Your task to perform on an android device: turn vacation reply on in the gmail app Image 0: 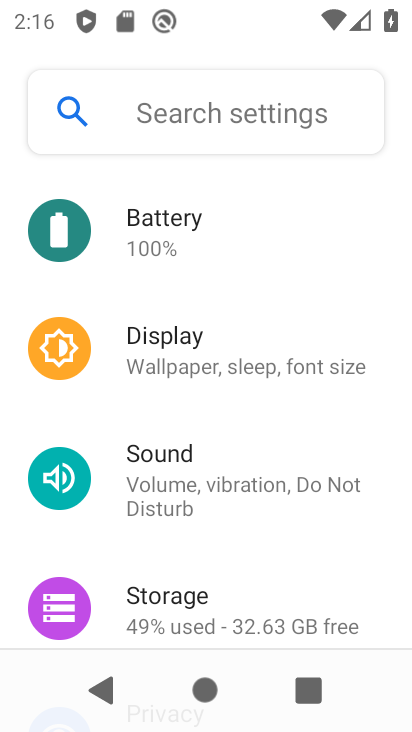
Step 0: press home button
Your task to perform on an android device: turn vacation reply on in the gmail app Image 1: 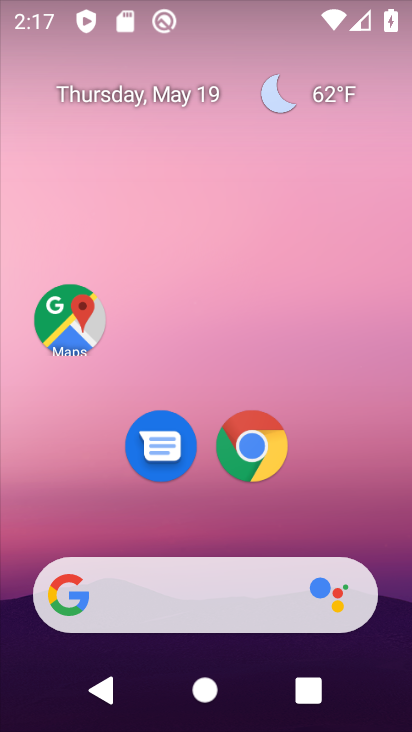
Step 1: drag from (389, 704) to (376, 280)
Your task to perform on an android device: turn vacation reply on in the gmail app Image 2: 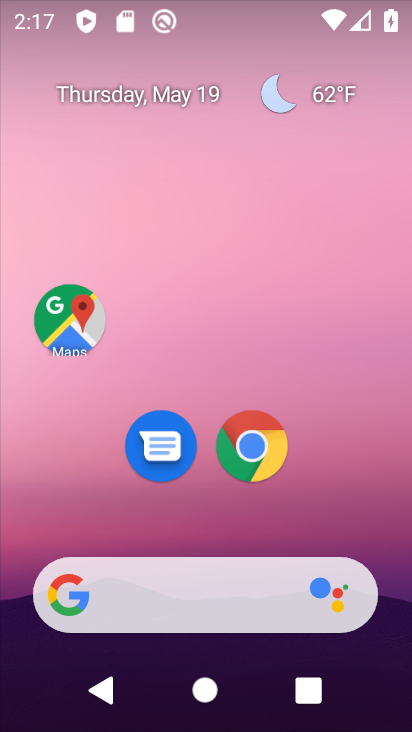
Step 2: drag from (394, 703) to (340, 279)
Your task to perform on an android device: turn vacation reply on in the gmail app Image 3: 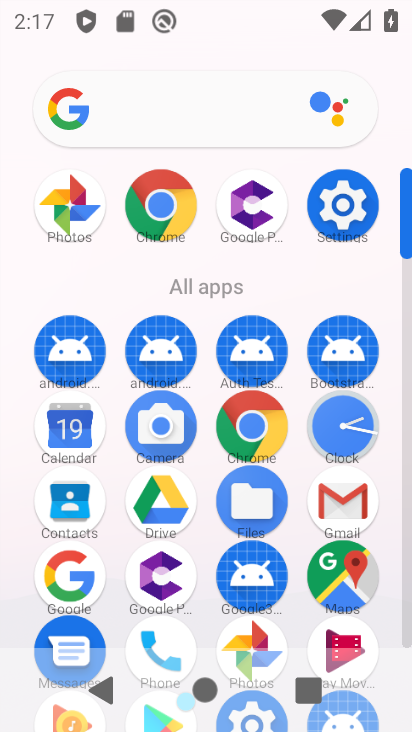
Step 3: click (329, 504)
Your task to perform on an android device: turn vacation reply on in the gmail app Image 4: 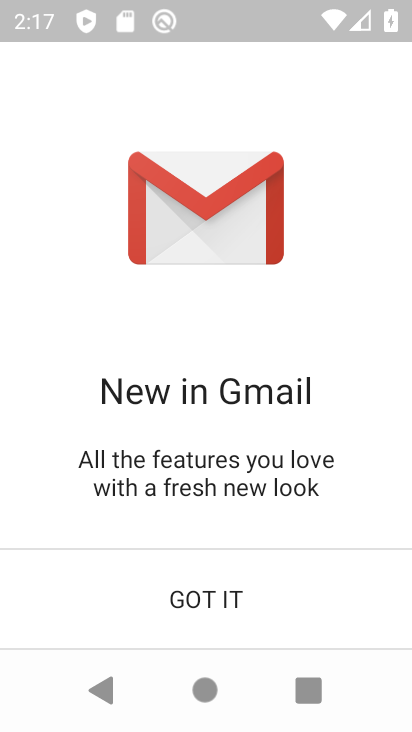
Step 4: click (190, 597)
Your task to perform on an android device: turn vacation reply on in the gmail app Image 5: 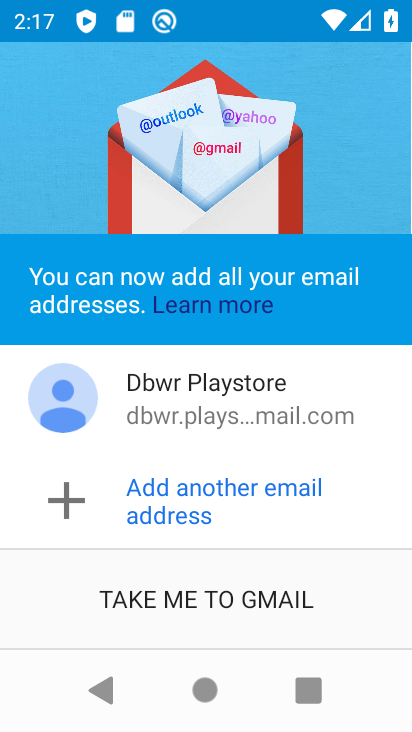
Step 5: click (171, 593)
Your task to perform on an android device: turn vacation reply on in the gmail app Image 6: 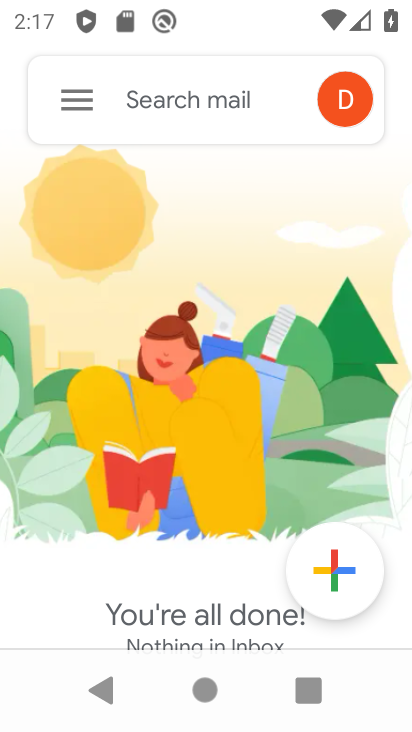
Step 6: click (79, 100)
Your task to perform on an android device: turn vacation reply on in the gmail app Image 7: 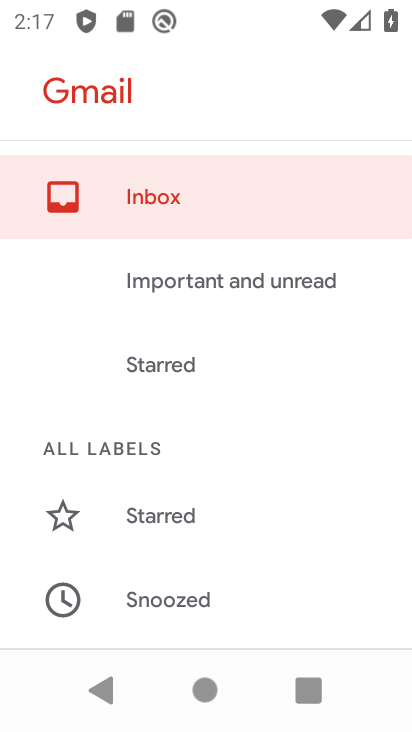
Step 7: drag from (274, 616) to (283, 426)
Your task to perform on an android device: turn vacation reply on in the gmail app Image 8: 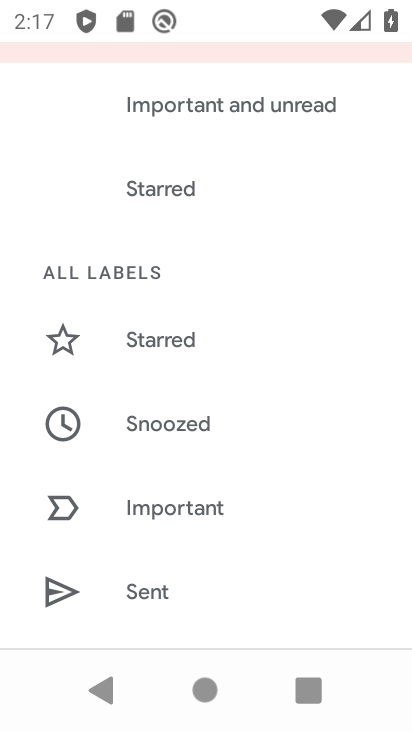
Step 8: drag from (312, 615) to (306, 439)
Your task to perform on an android device: turn vacation reply on in the gmail app Image 9: 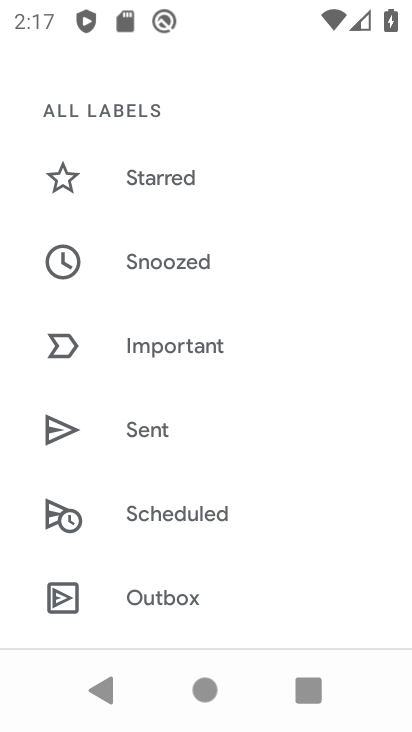
Step 9: drag from (318, 622) to (321, 417)
Your task to perform on an android device: turn vacation reply on in the gmail app Image 10: 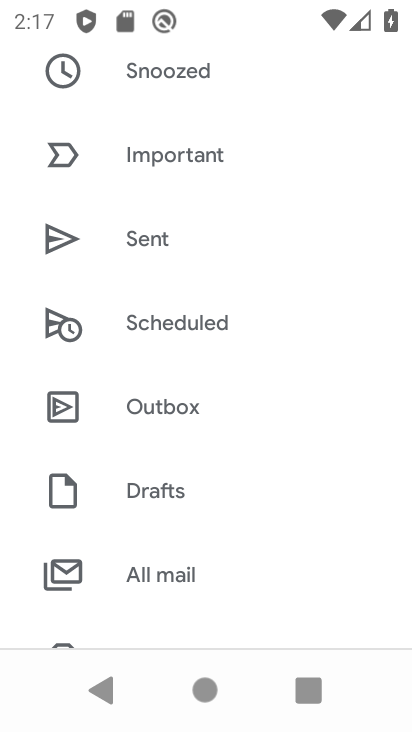
Step 10: drag from (299, 619) to (296, 401)
Your task to perform on an android device: turn vacation reply on in the gmail app Image 11: 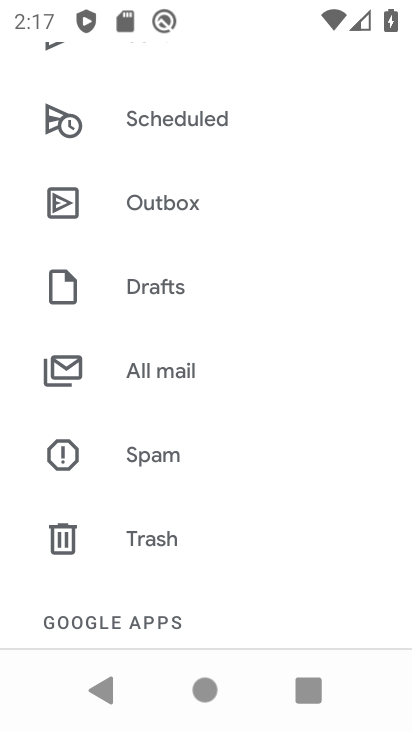
Step 11: drag from (300, 597) to (312, 387)
Your task to perform on an android device: turn vacation reply on in the gmail app Image 12: 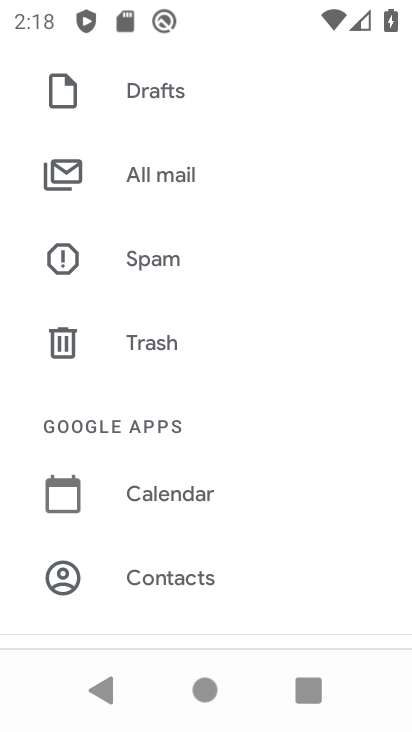
Step 12: drag from (298, 614) to (301, 455)
Your task to perform on an android device: turn vacation reply on in the gmail app Image 13: 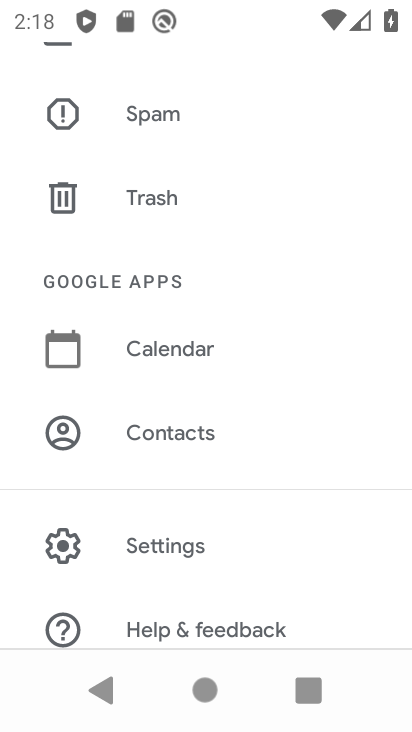
Step 13: click (148, 551)
Your task to perform on an android device: turn vacation reply on in the gmail app Image 14: 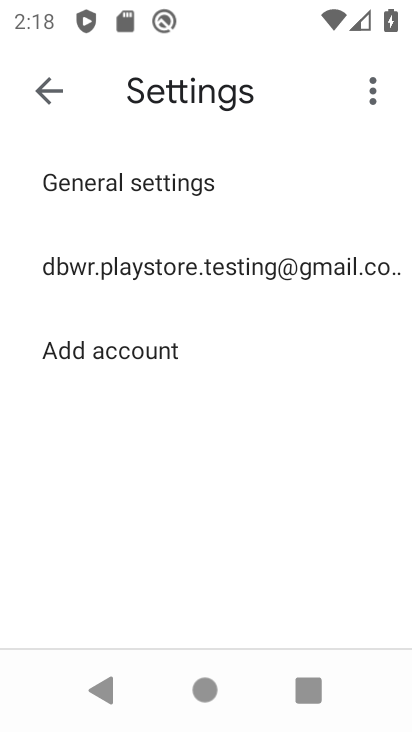
Step 14: click (124, 267)
Your task to perform on an android device: turn vacation reply on in the gmail app Image 15: 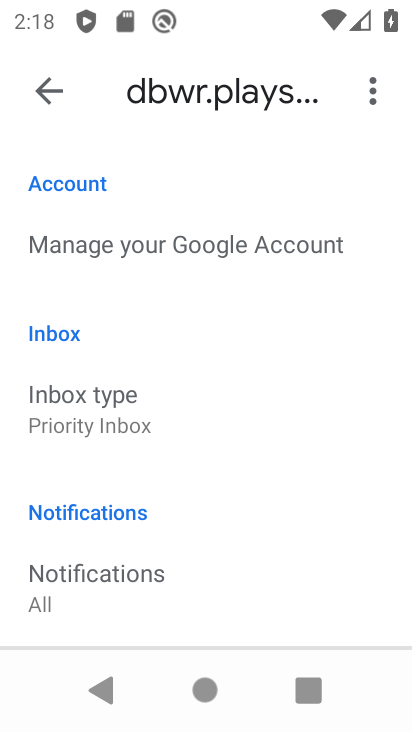
Step 15: task complete